Your task to perform on an android device: install app "TextNow: Call + Text Unlimited" Image 0: 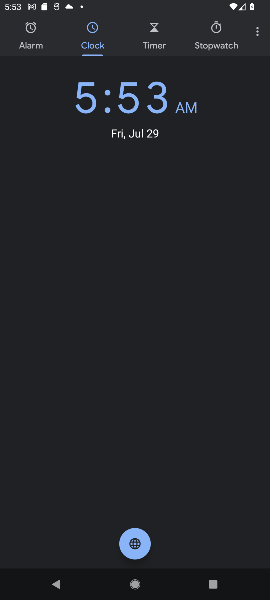
Step 0: press home button
Your task to perform on an android device: install app "TextNow: Call + Text Unlimited" Image 1: 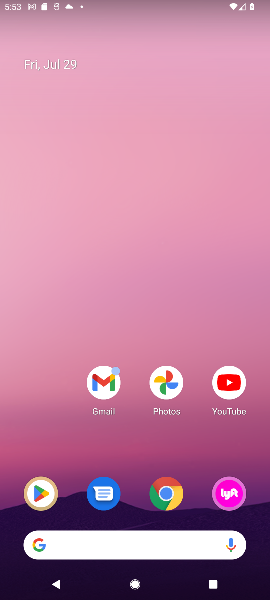
Step 1: click (46, 493)
Your task to perform on an android device: install app "TextNow: Call + Text Unlimited" Image 2: 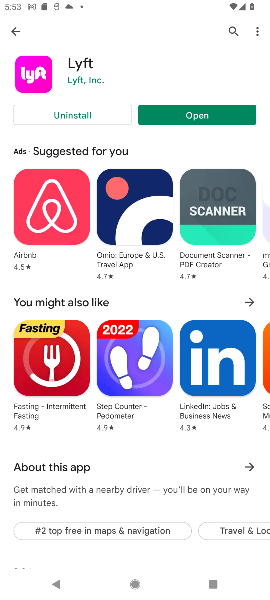
Step 2: click (235, 27)
Your task to perform on an android device: install app "TextNow: Call + Text Unlimited" Image 3: 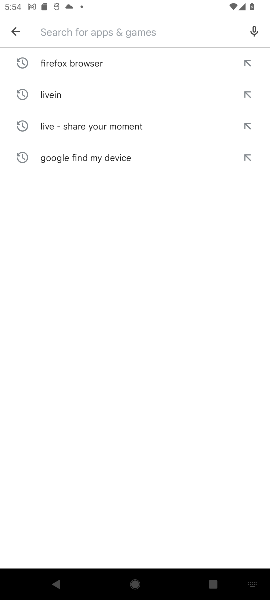
Step 3: type "TextNow: Call + Text Unlimited"
Your task to perform on an android device: install app "TextNow: Call + Text Unlimited" Image 4: 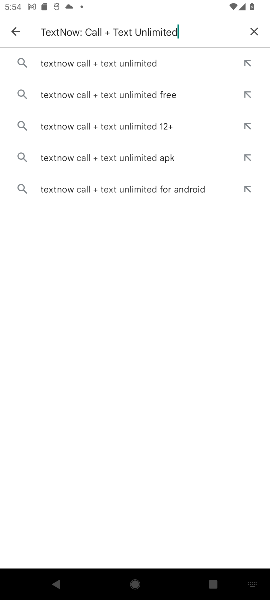
Step 4: click (137, 63)
Your task to perform on an android device: install app "TextNow: Call + Text Unlimited" Image 5: 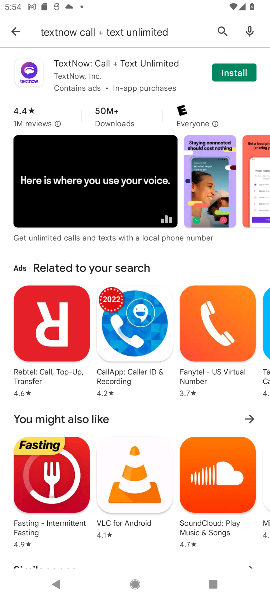
Step 5: click (227, 67)
Your task to perform on an android device: install app "TextNow: Call + Text Unlimited" Image 6: 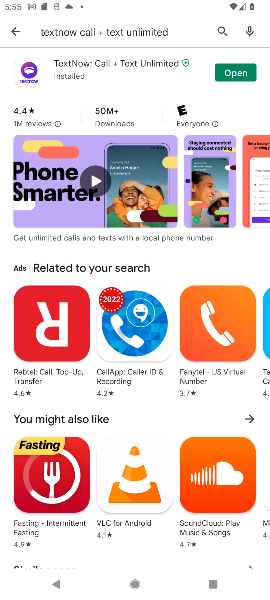
Step 6: task complete